Your task to perform on an android device: check google app version Image 0: 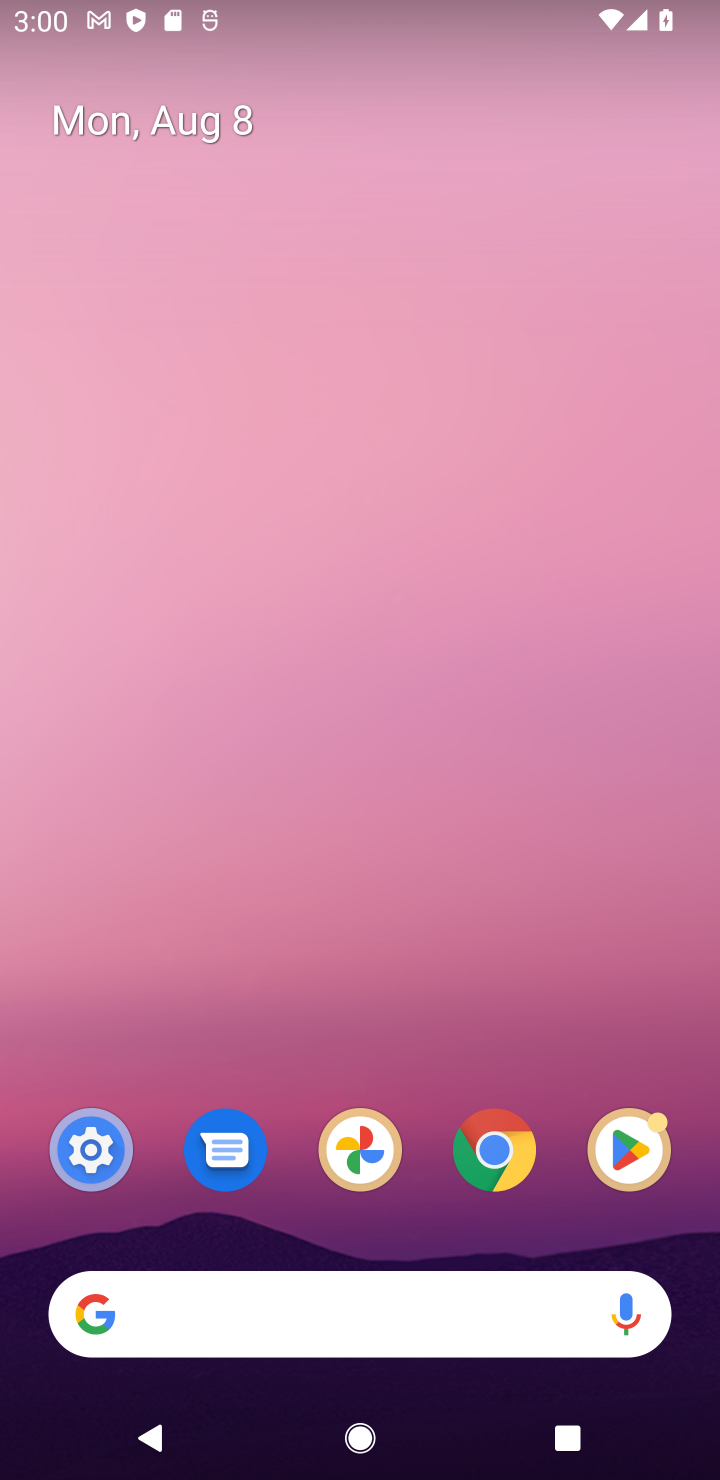
Step 0: click (526, 1176)
Your task to perform on an android device: check google app version Image 1: 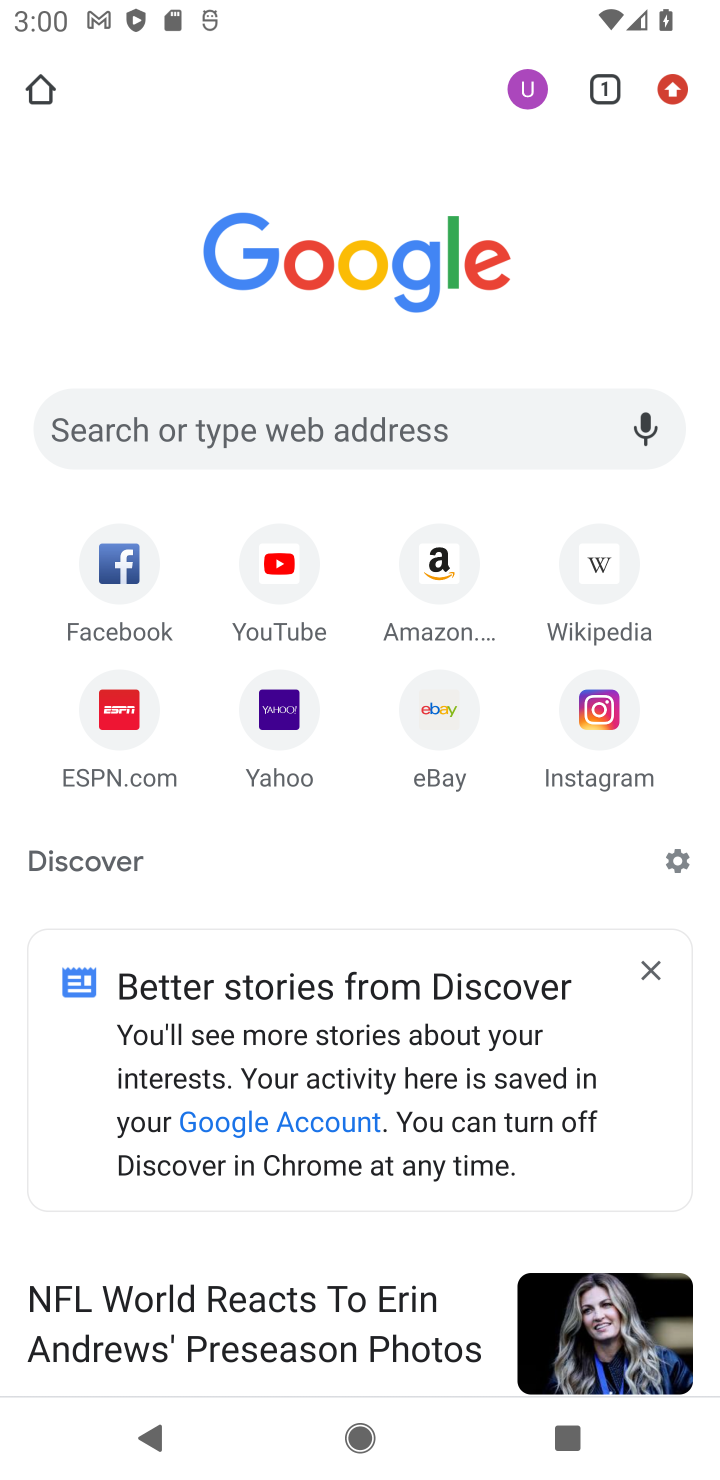
Step 1: task complete